Your task to perform on an android device: Go to display settings Image 0: 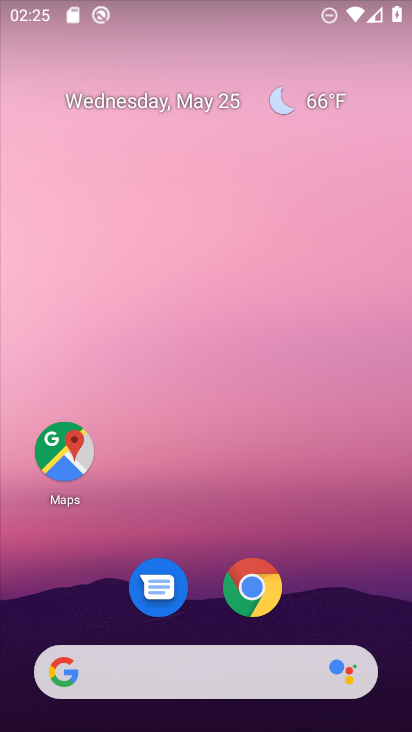
Step 0: drag from (380, 598) to (369, 230)
Your task to perform on an android device: Go to display settings Image 1: 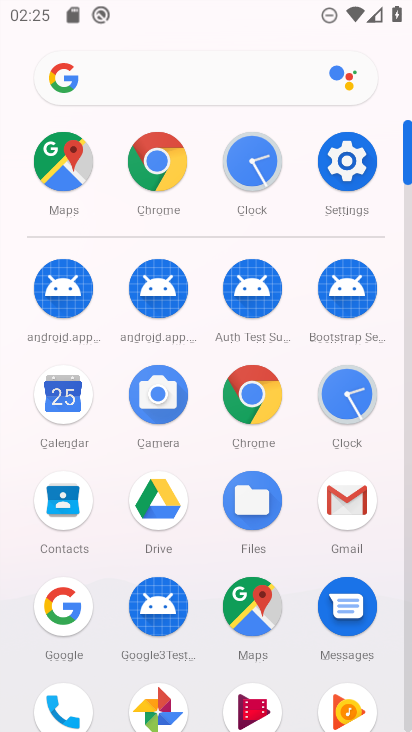
Step 1: click (340, 169)
Your task to perform on an android device: Go to display settings Image 2: 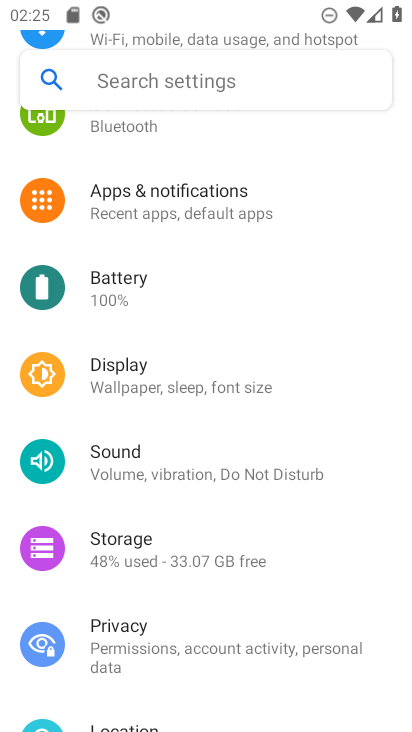
Step 2: drag from (373, 524) to (363, 357)
Your task to perform on an android device: Go to display settings Image 3: 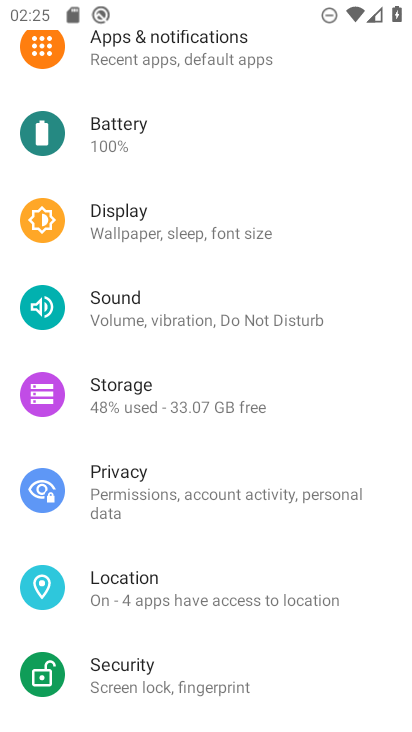
Step 3: drag from (354, 604) to (355, 467)
Your task to perform on an android device: Go to display settings Image 4: 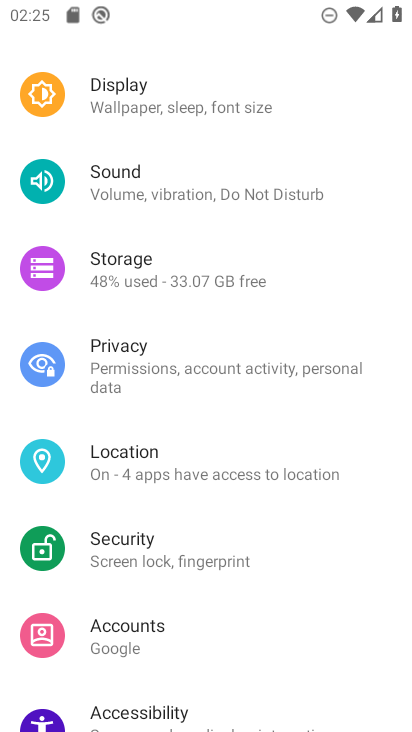
Step 4: drag from (334, 628) to (337, 449)
Your task to perform on an android device: Go to display settings Image 5: 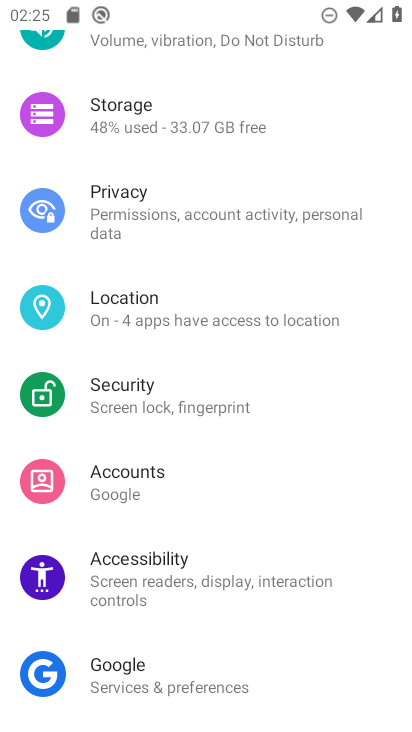
Step 5: drag from (336, 593) to (345, 464)
Your task to perform on an android device: Go to display settings Image 6: 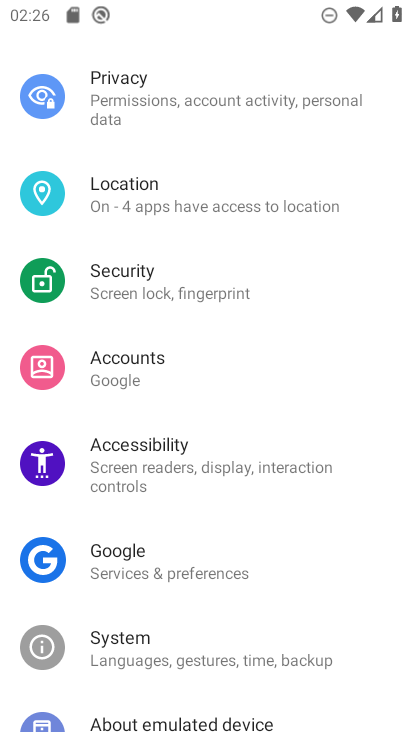
Step 6: drag from (337, 591) to (338, 481)
Your task to perform on an android device: Go to display settings Image 7: 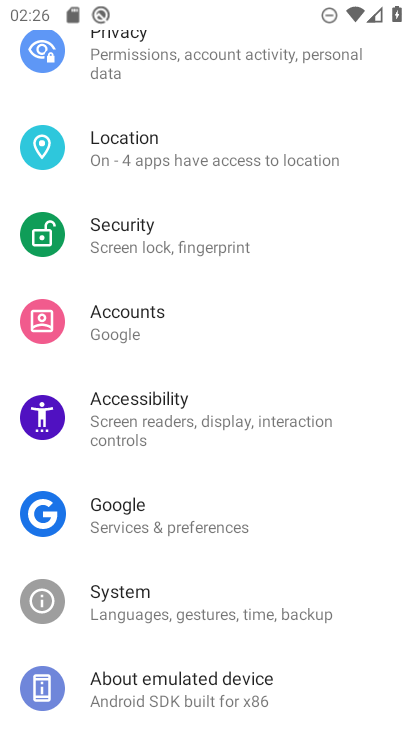
Step 7: drag from (336, 362) to (337, 474)
Your task to perform on an android device: Go to display settings Image 8: 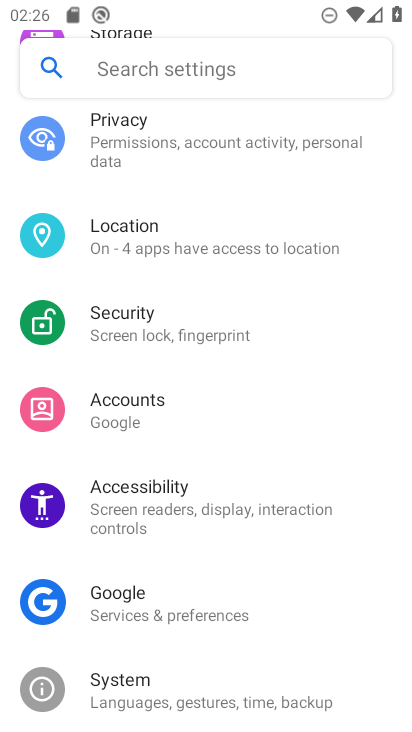
Step 8: drag from (337, 368) to (341, 456)
Your task to perform on an android device: Go to display settings Image 9: 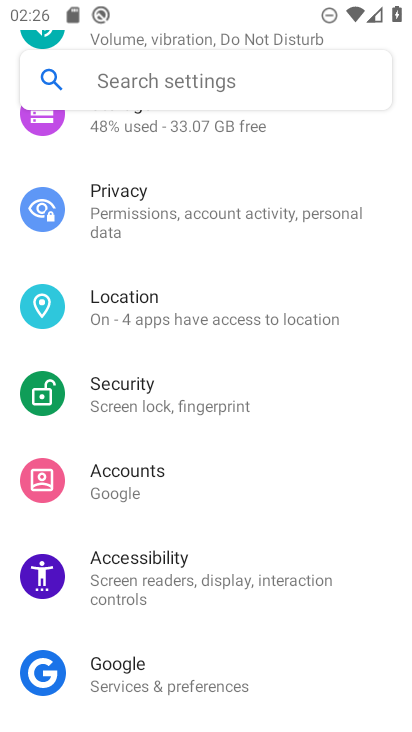
Step 9: drag from (332, 359) to (341, 433)
Your task to perform on an android device: Go to display settings Image 10: 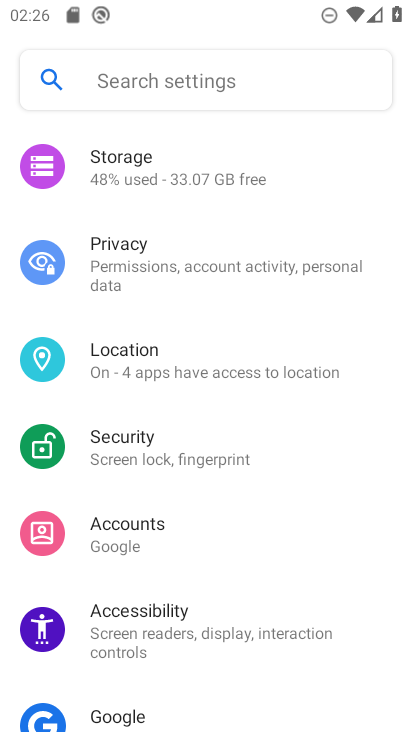
Step 10: drag from (336, 344) to (337, 438)
Your task to perform on an android device: Go to display settings Image 11: 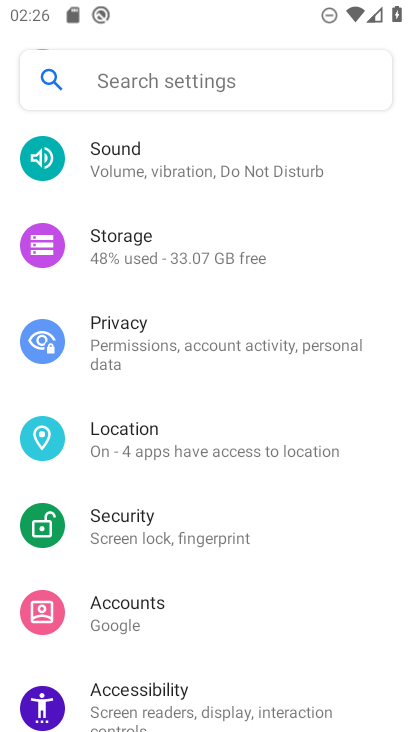
Step 11: drag from (335, 300) to (339, 401)
Your task to perform on an android device: Go to display settings Image 12: 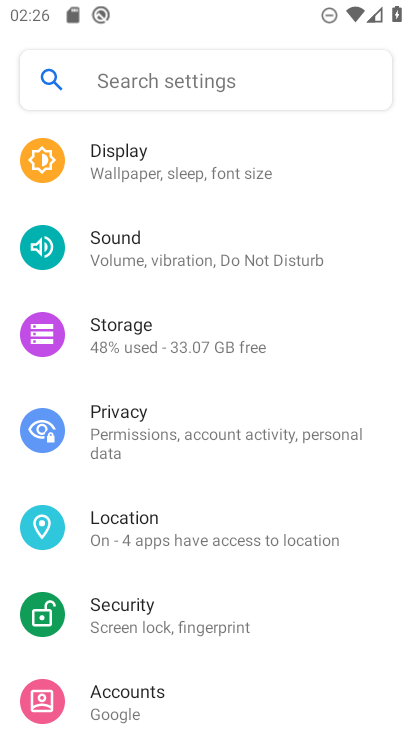
Step 12: drag from (349, 283) to (369, 421)
Your task to perform on an android device: Go to display settings Image 13: 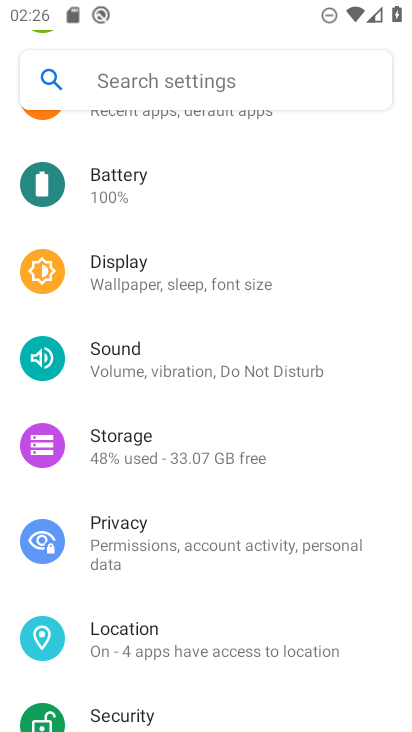
Step 13: drag from (356, 308) to (362, 400)
Your task to perform on an android device: Go to display settings Image 14: 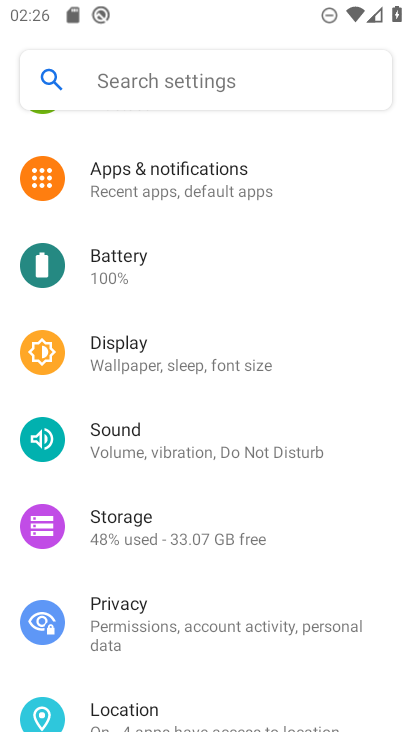
Step 14: click (224, 372)
Your task to perform on an android device: Go to display settings Image 15: 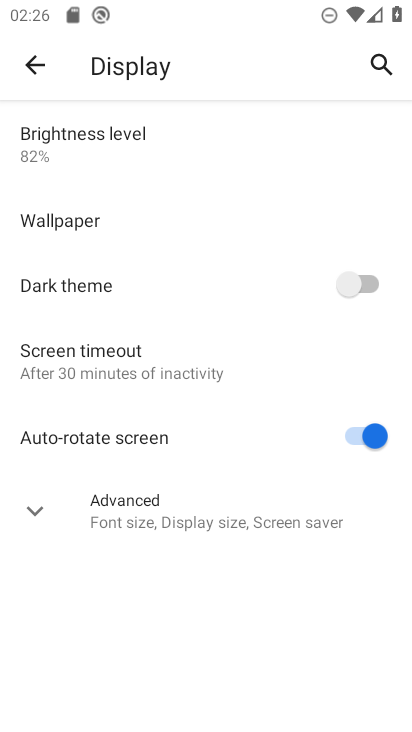
Step 15: task complete